Your task to perform on an android device: turn on sleep mode Image 0: 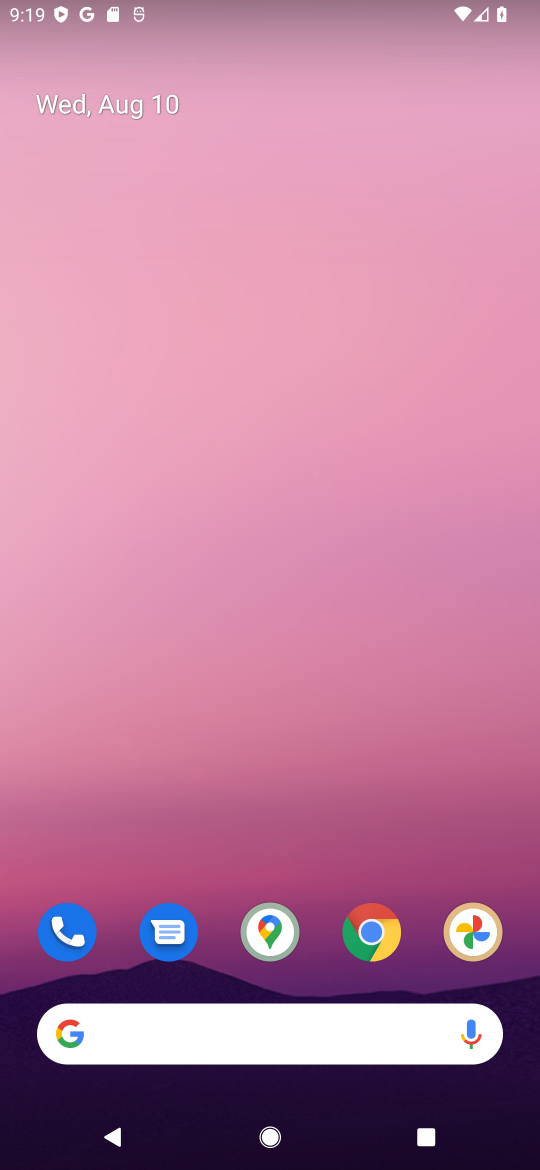
Step 0: drag from (327, 920) to (325, 6)
Your task to perform on an android device: turn on sleep mode Image 1: 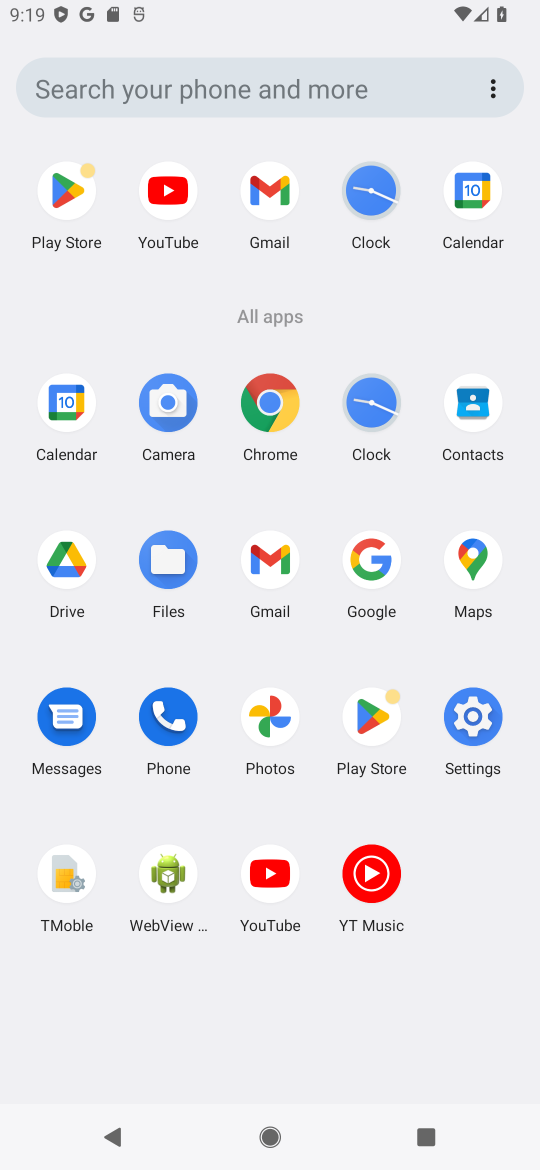
Step 1: click (477, 715)
Your task to perform on an android device: turn on sleep mode Image 2: 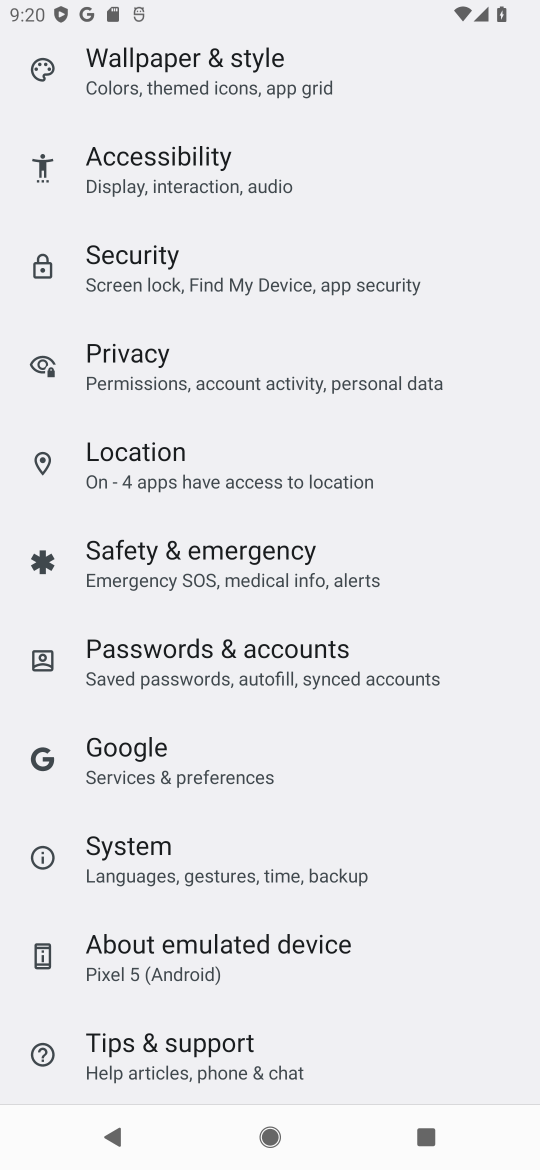
Step 2: drag from (318, 166) to (285, 477)
Your task to perform on an android device: turn on sleep mode Image 3: 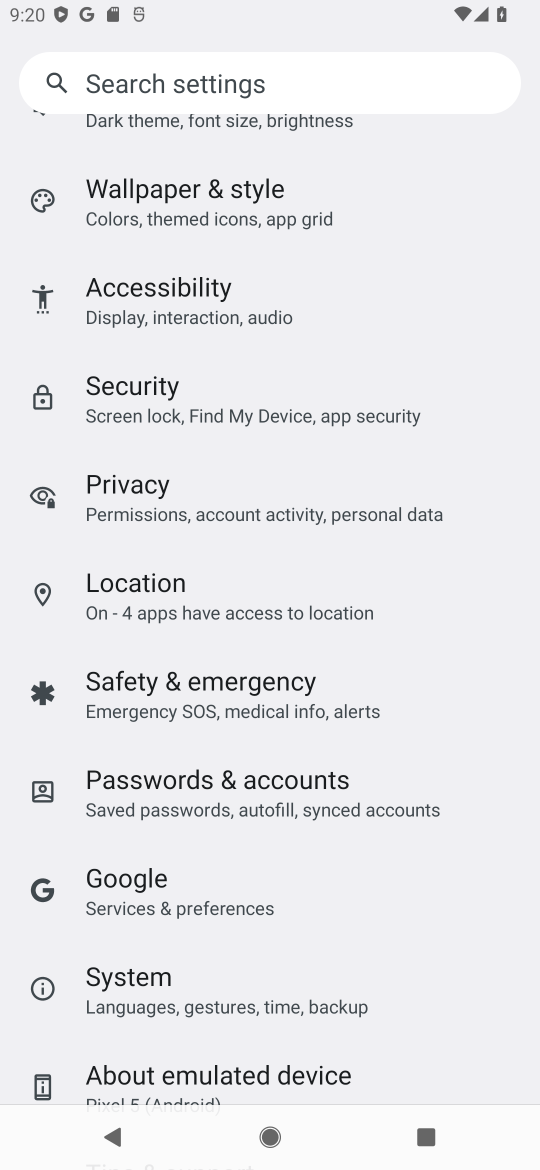
Step 3: drag from (317, 326) to (313, 766)
Your task to perform on an android device: turn on sleep mode Image 4: 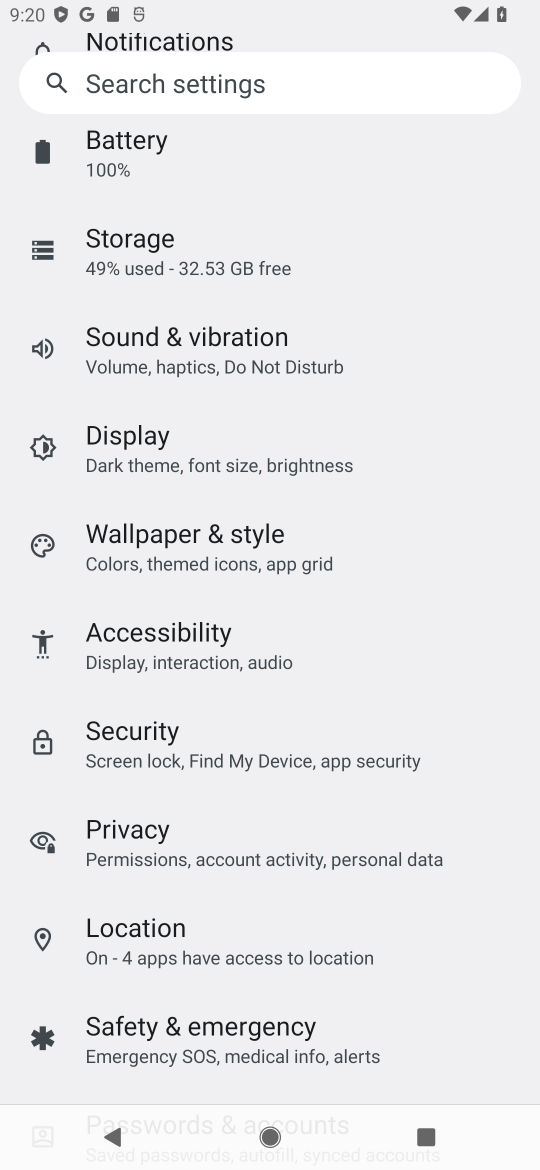
Step 4: click (148, 436)
Your task to perform on an android device: turn on sleep mode Image 5: 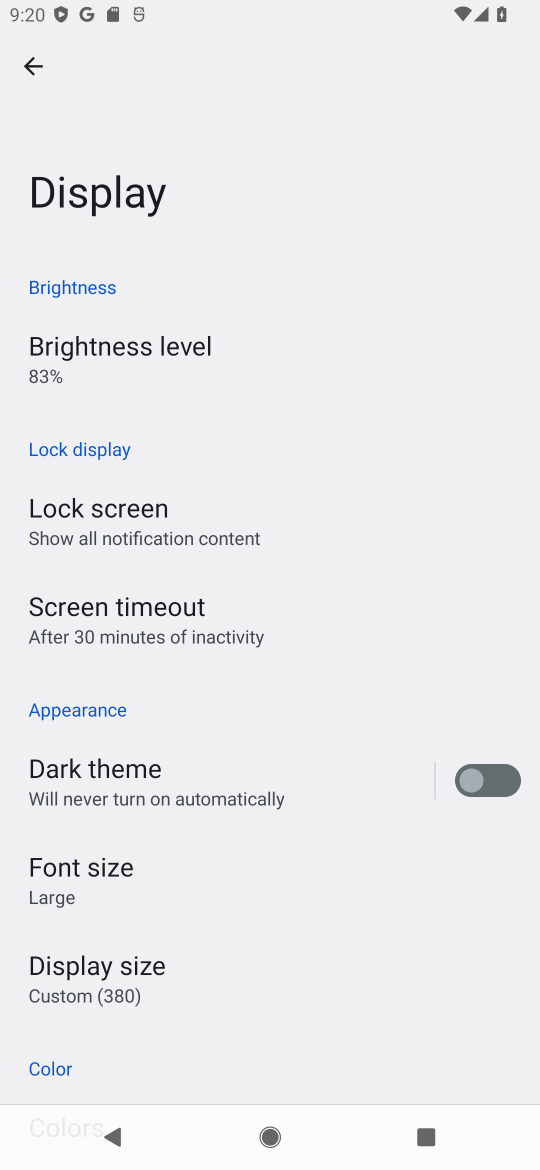
Step 5: task complete